Your task to perform on an android device: toggle data saver in the chrome app Image 0: 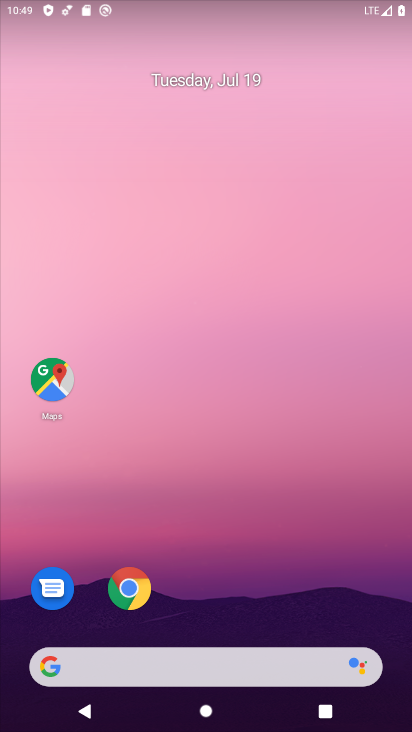
Step 0: drag from (353, 479) to (392, 441)
Your task to perform on an android device: toggle data saver in the chrome app Image 1: 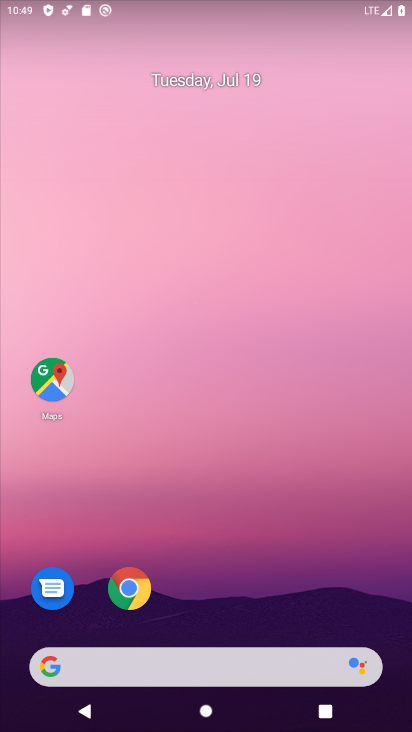
Step 1: drag from (276, 538) to (198, 55)
Your task to perform on an android device: toggle data saver in the chrome app Image 2: 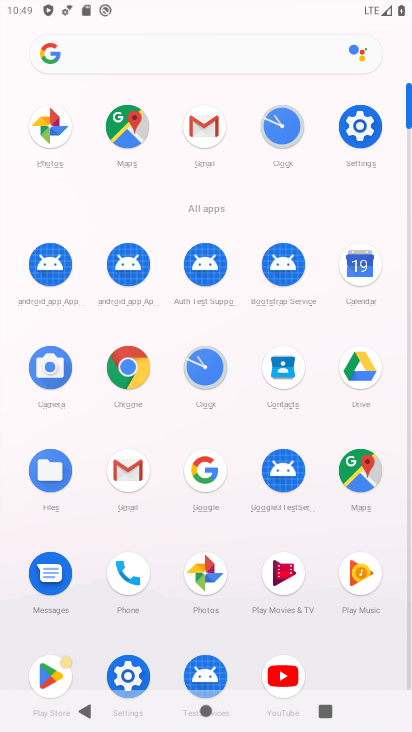
Step 2: click (123, 375)
Your task to perform on an android device: toggle data saver in the chrome app Image 3: 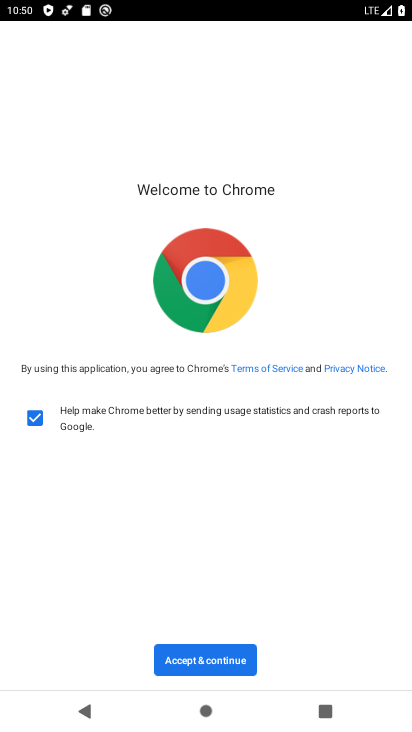
Step 3: click (229, 656)
Your task to perform on an android device: toggle data saver in the chrome app Image 4: 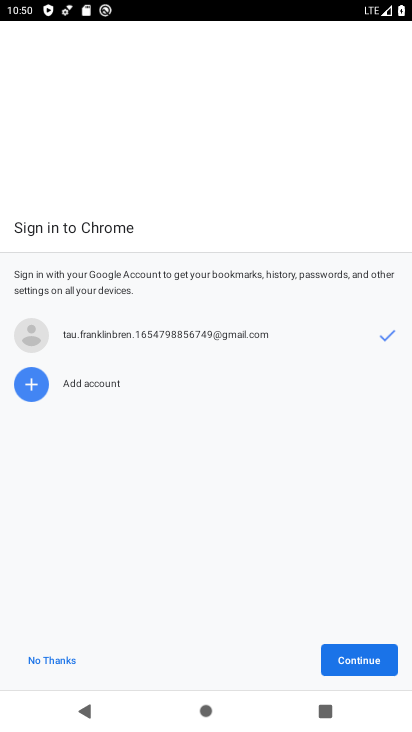
Step 4: click (31, 667)
Your task to perform on an android device: toggle data saver in the chrome app Image 5: 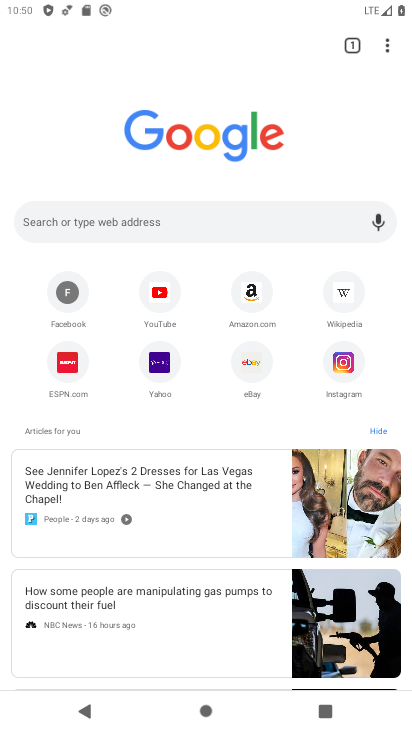
Step 5: drag from (378, 53) to (225, 370)
Your task to perform on an android device: toggle data saver in the chrome app Image 6: 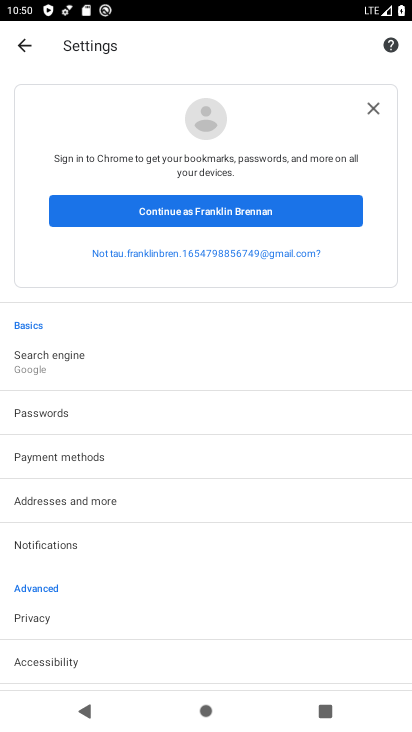
Step 6: drag from (126, 681) to (211, 285)
Your task to perform on an android device: toggle data saver in the chrome app Image 7: 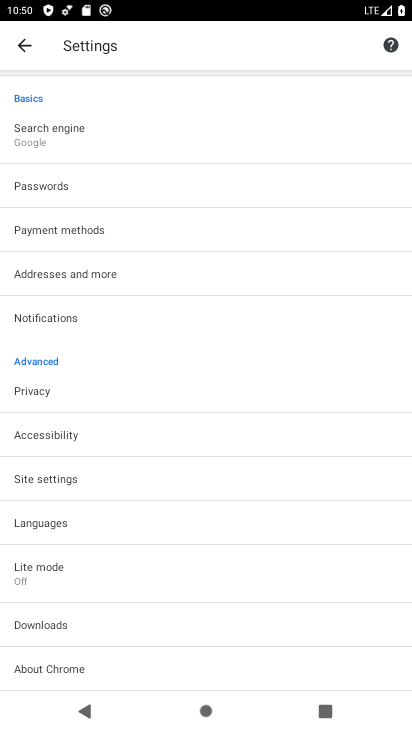
Step 7: click (96, 575)
Your task to perform on an android device: toggle data saver in the chrome app Image 8: 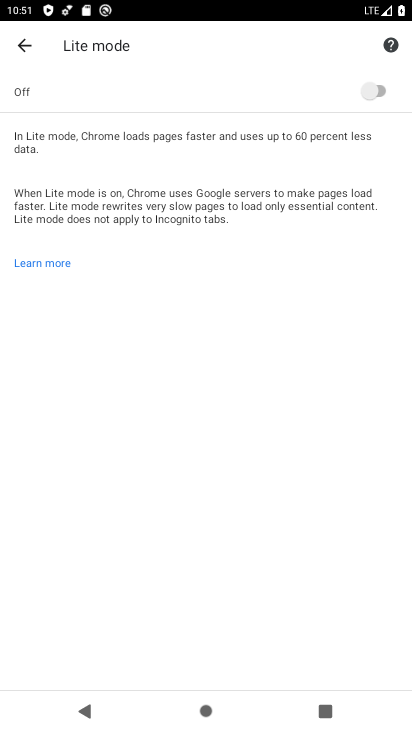
Step 8: click (381, 85)
Your task to perform on an android device: toggle data saver in the chrome app Image 9: 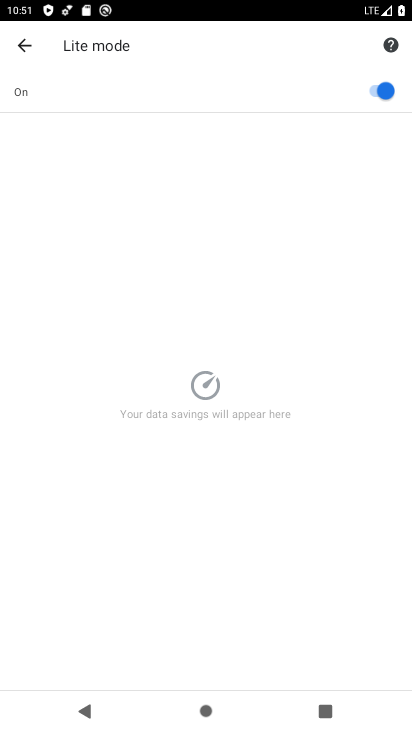
Step 9: task complete